Your task to perform on an android device: open app "Move to iOS" (install if not already installed) Image 0: 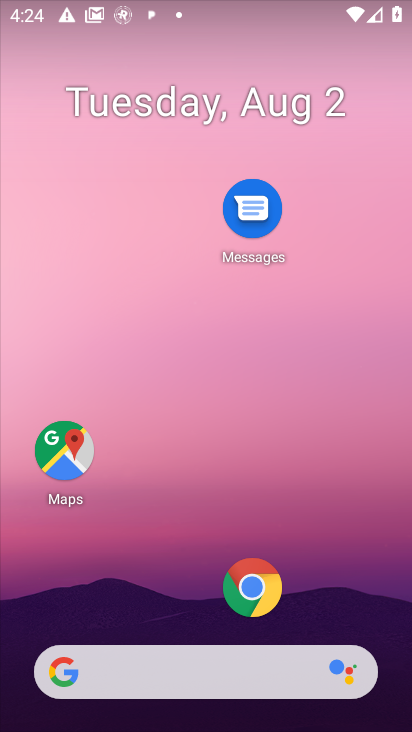
Step 0: drag from (180, 594) to (172, 153)
Your task to perform on an android device: open app "Move to iOS" (install if not already installed) Image 1: 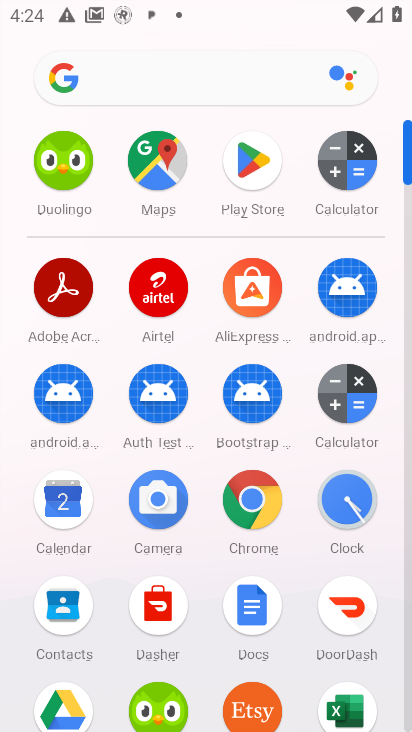
Step 1: click (267, 177)
Your task to perform on an android device: open app "Move to iOS" (install if not already installed) Image 2: 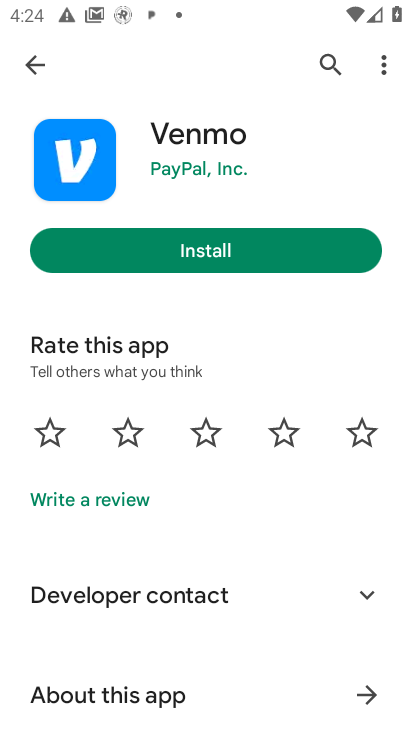
Step 2: click (335, 64)
Your task to perform on an android device: open app "Move to iOS" (install if not already installed) Image 3: 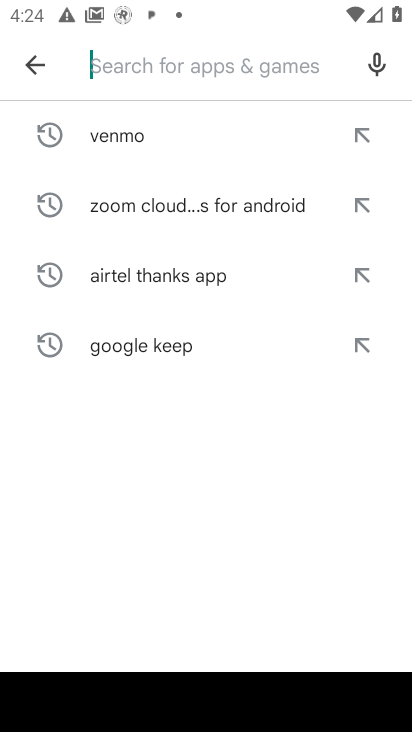
Step 3: type "Move to iOS"
Your task to perform on an android device: open app "Move to iOS" (install if not already installed) Image 4: 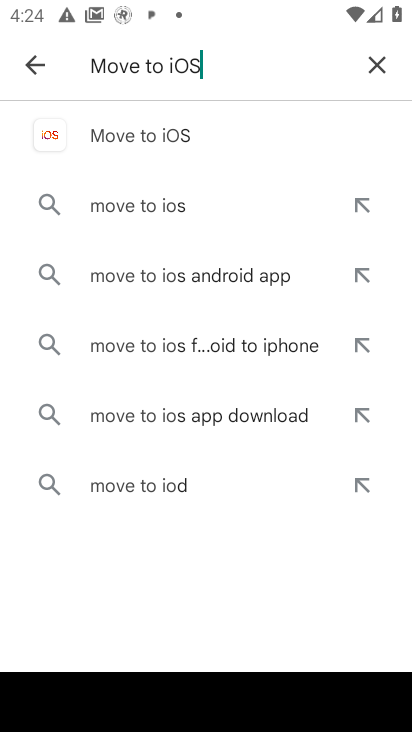
Step 4: type ""
Your task to perform on an android device: open app "Move to iOS" (install if not already installed) Image 5: 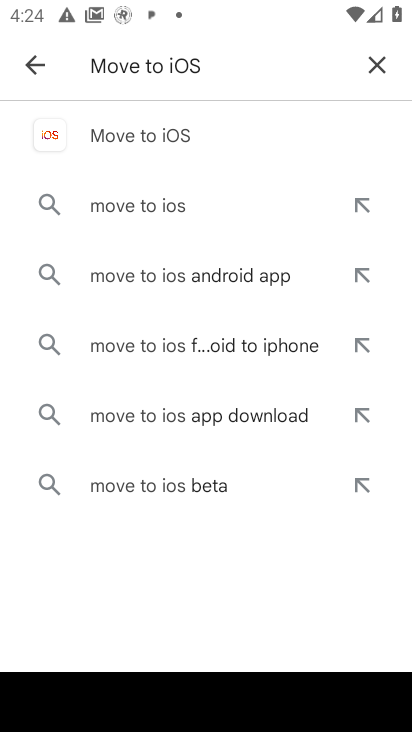
Step 5: click (129, 149)
Your task to perform on an android device: open app "Move to iOS" (install if not already installed) Image 6: 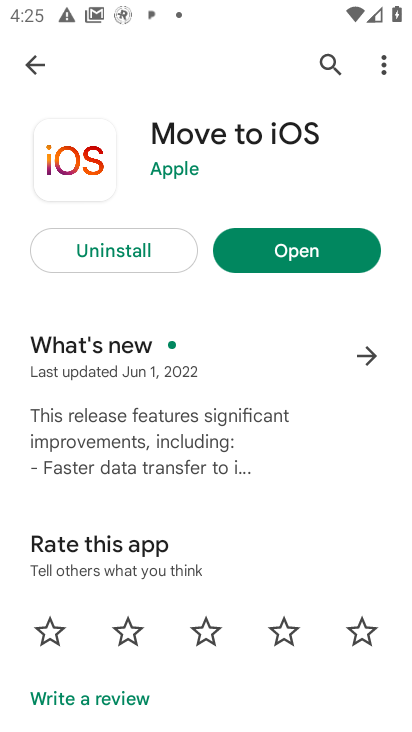
Step 6: click (298, 256)
Your task to perform on an android device: open app "Move to iOS" (install if not already installed) Image 7: 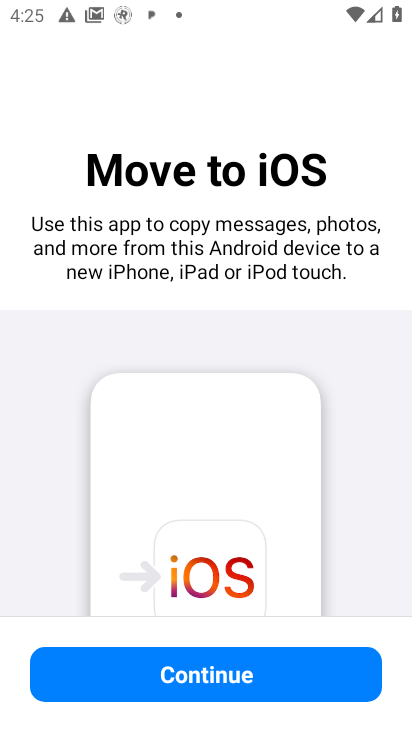
Step 7: task complete